Your task to perform on an android device: turn off javascript in the chrome app Image 0: 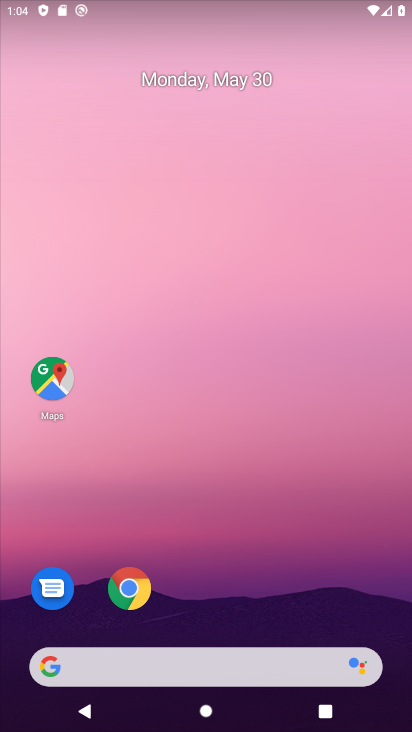
Step 0: click (132, 590)
Your task to perform on an android device: turn off javascript in the chrome app Image 1: 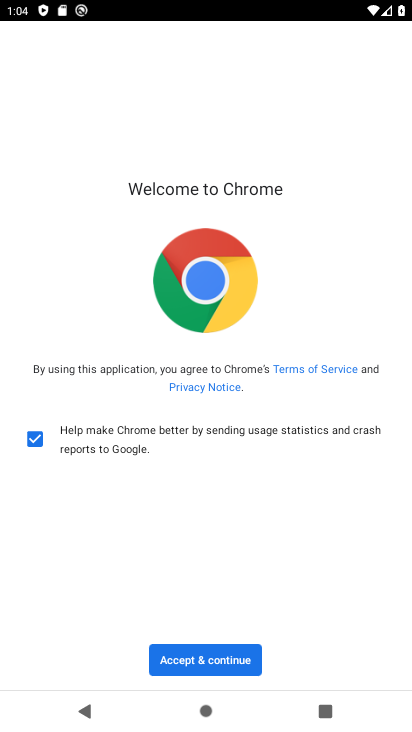
Step 1: click (210, 659)
Your task to perform on an android device: turn off javascript in the chrome app Image 2: 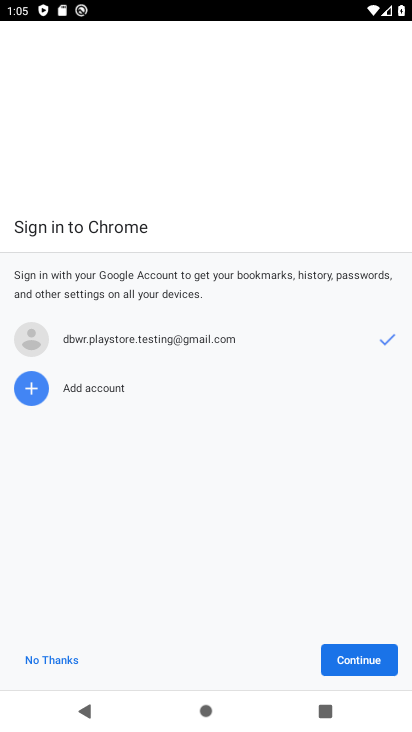
Step 2: click (369, 653)
Your task to perform on an android device: turn off javascript in the chrome app Image 3: 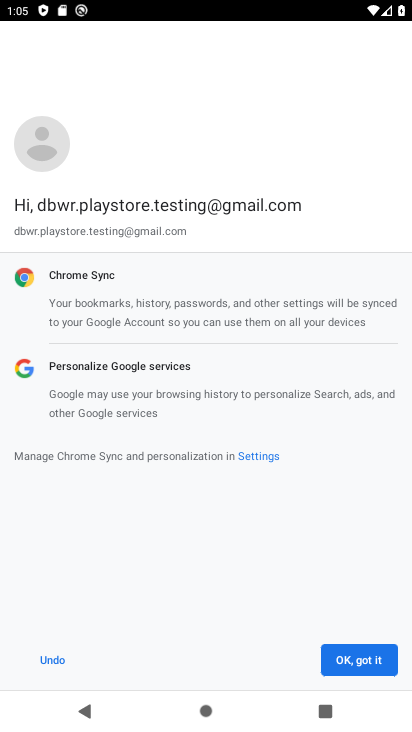
Step 3: click (360, 657)
Your task to perform on an android device: turn off javascript in the chrome app Image 4: 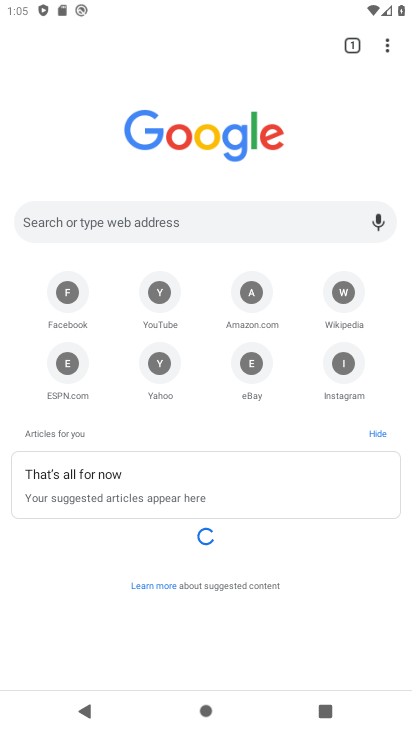
Step 4: click (385, 52)
Your task to perform on an android device: turn off javascript in the chrome app Image 5: 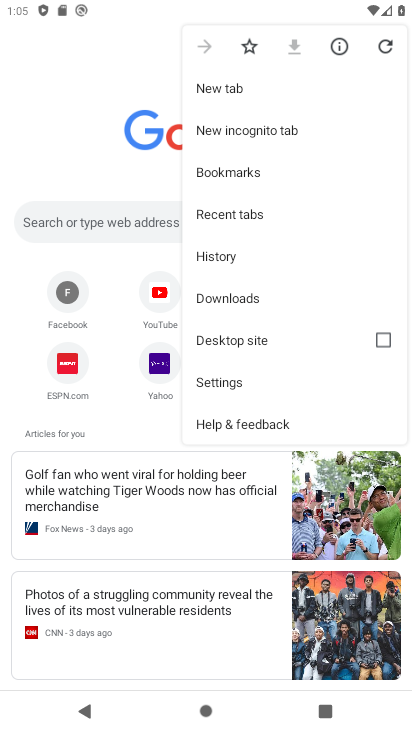
Step 5: click (222, 374)
Your task to perform on an android device: turn off javascript in the chrome app Image 6: 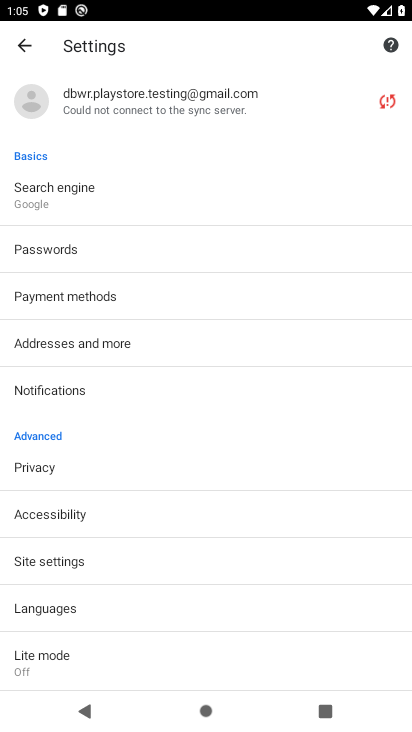
Step 6: click (47, 567)
Your task to perform on an android device: turn off javascript in the chrome app Image 7: 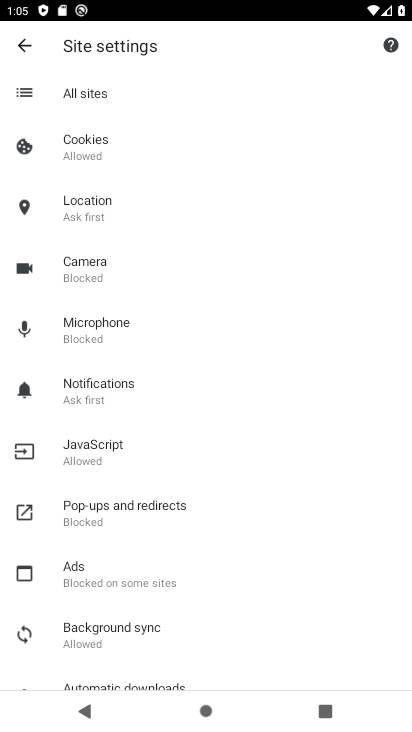
Step 7: click (94, 442)
Your task to perform on an android device: turn off javascript in the chrome app Image 8: 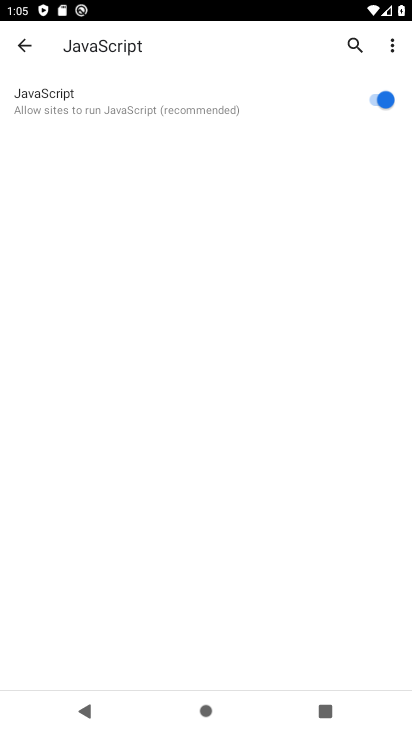
Step 8: click (372, 101)
Your task to perform on an android device: turn off javascript in the chrome app Image 9: 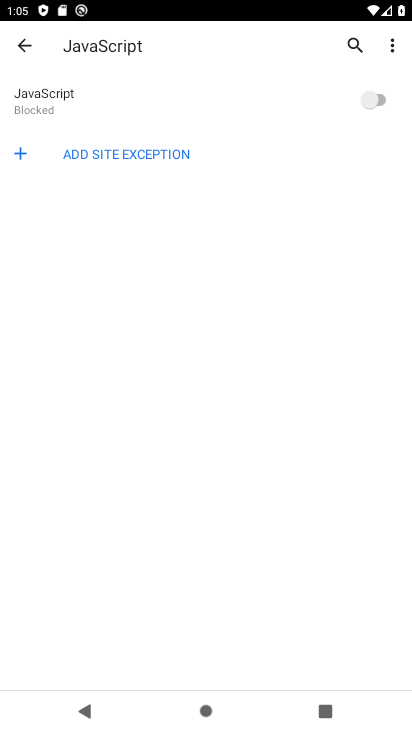
Step 9: task complete